Your task to perform on an android device: Open Google Chrome Image 0: 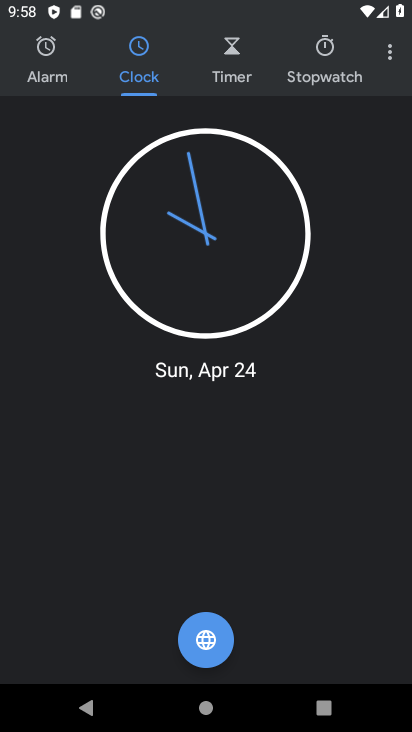
Step 0: press home button
Your task to perform on an android device: Open Google Chrome Image 1: 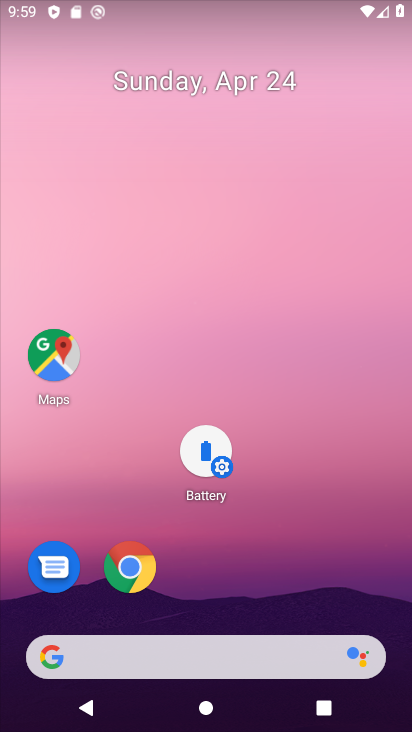
Step 1: click (124, 559)
Your task to perform on an android device: Open Google Chrome Image 2: 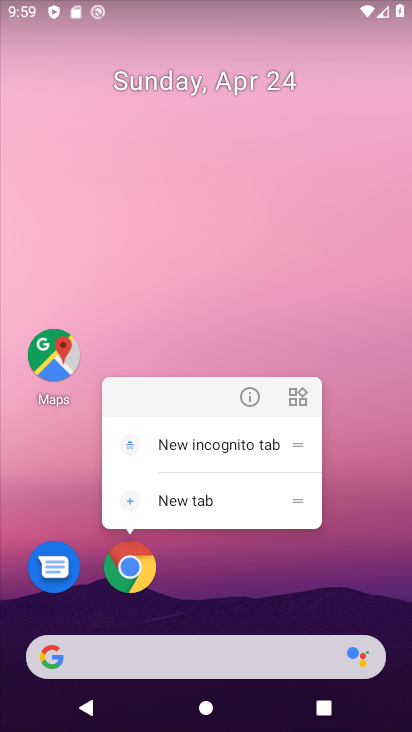
Step 2: click (247, 397)
Your task to perform on an android device: Open Google Chrome Image 3: 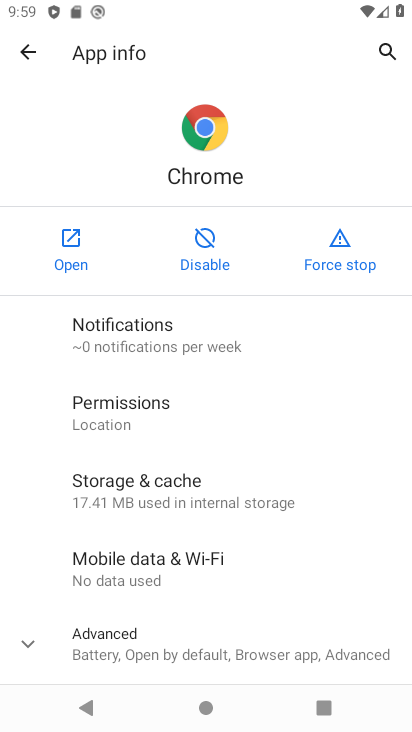
Step 3: click (73, 235)
Your task to perform on an android device: Open Google Chrome Image 4: 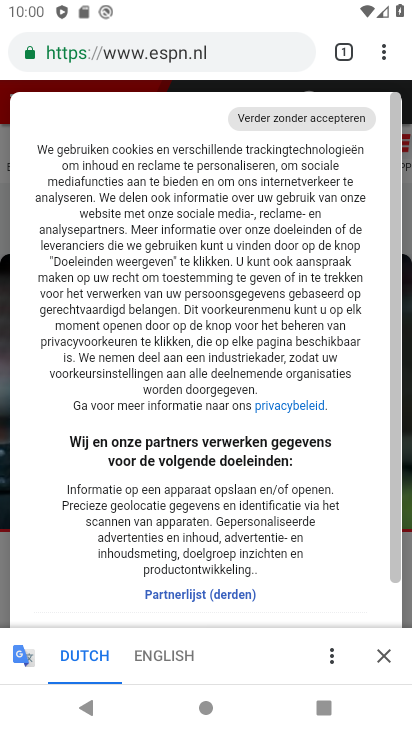
Step 4: task complete